Your task to perform on an android device: Toggle the flashlight Image 0: 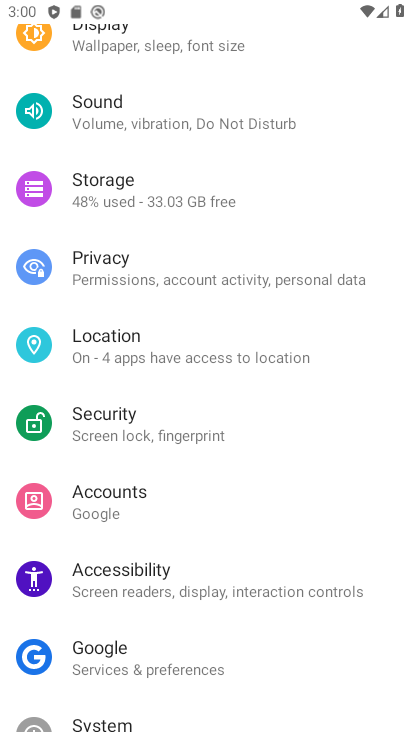
Step 0: task impossible